Your task to perform on an android device: What's the weather today? Image 0: 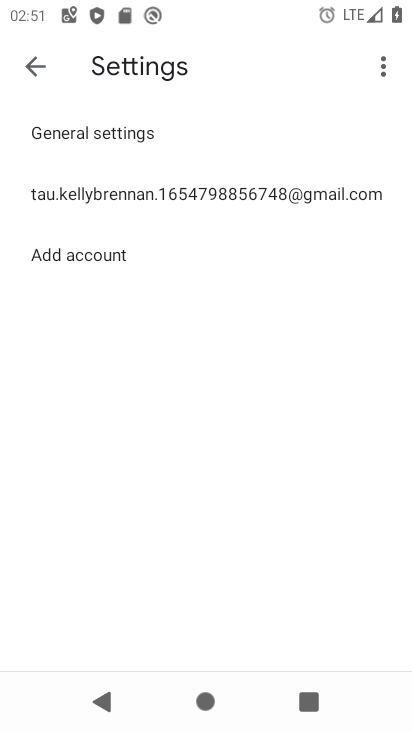
Step 0: press home button
Your task to perform on an android device: What's the weather today? Image 1: 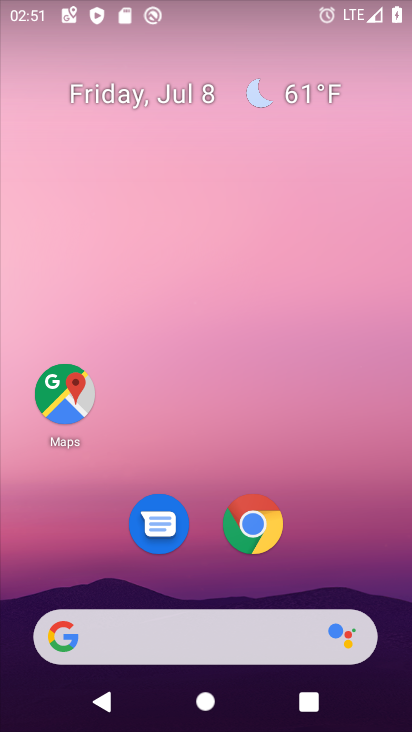
Step 1: click (230, 630)
Your task to perform on an android device: What's the weather today? Image 2: 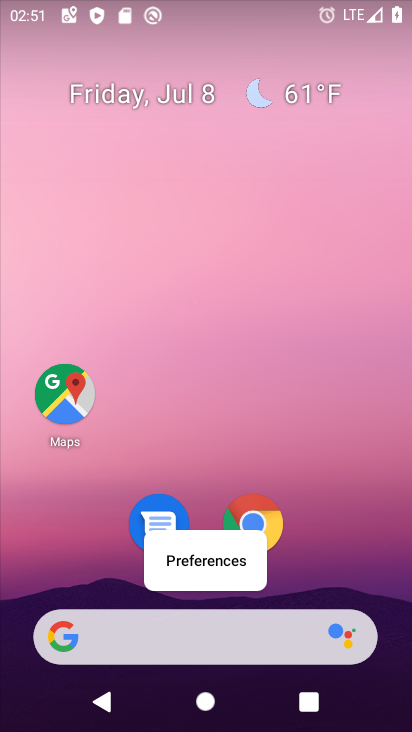
Step 2: click (191, 639)
Your task to perform on an android device: What's the weather today? Image 3: 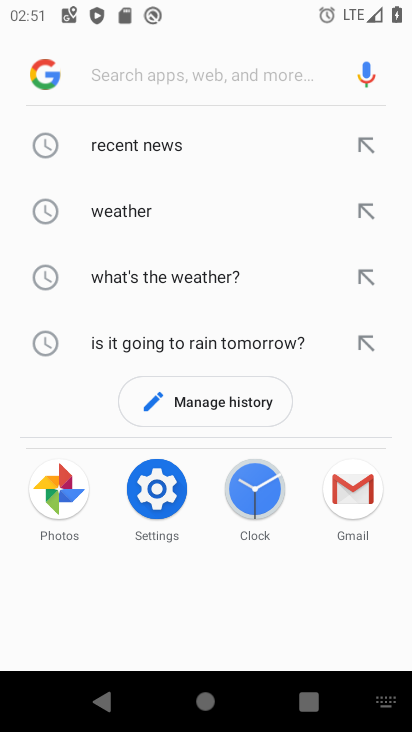
Step 3: click (126, 209)
Your task to perform on an android device: What's the weather today? Image 4: 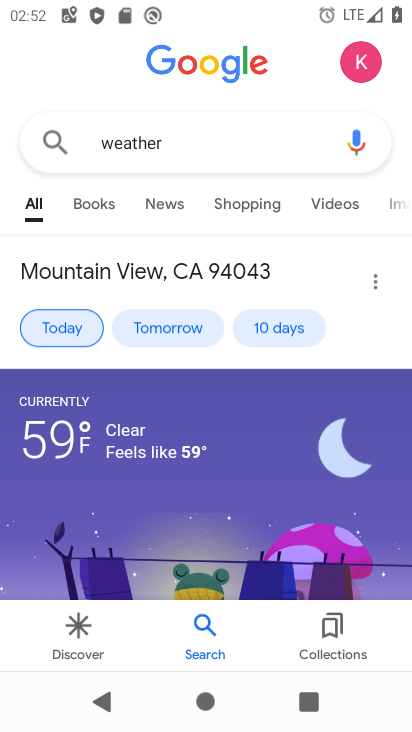
Step 4: click (79, 323)
Your task to perform on an android device: What's the weather today? Image 5: 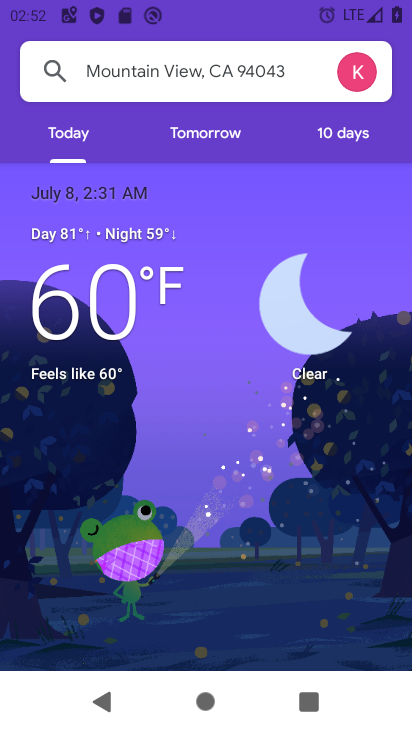
Step 5: task complete